Your task to perform on an android device: Show me recent news Image 0: 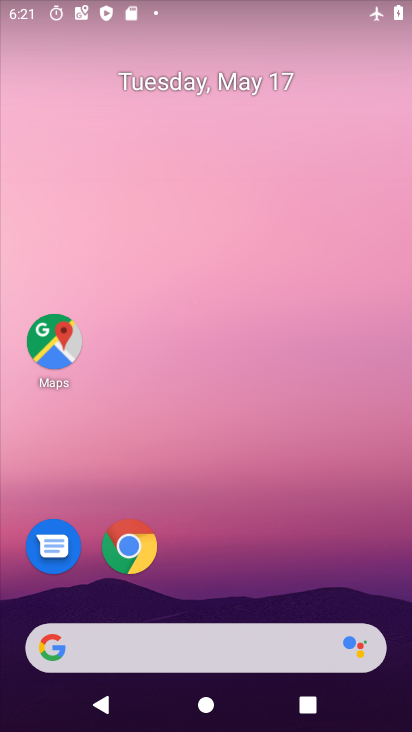
Step 0: drag from (240, 239) to (252, 153)
Your task to perform on an android device: Show me recent news Image 1: 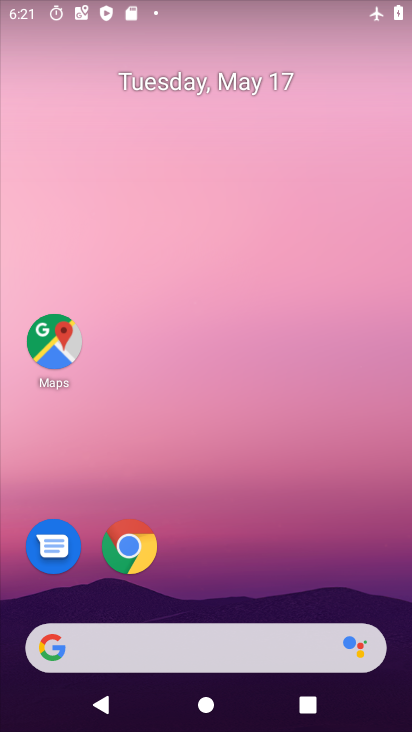
Step 1: drag from (202, 315) to (219, 1)
Your task to perform on an android device: Show me recent news Image 2: 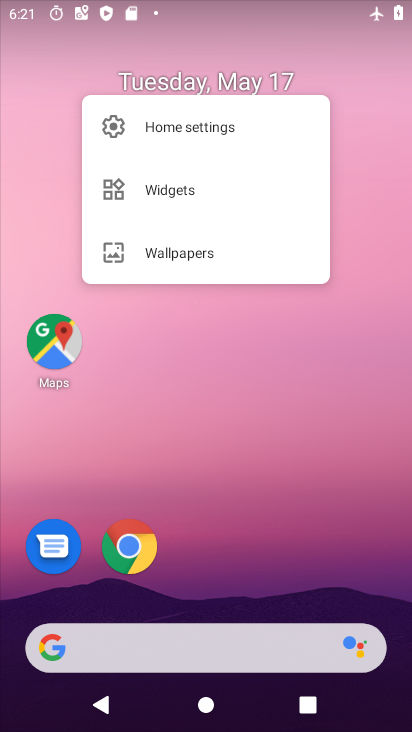
Step 2: drag from (186, 508) to (168, 0)
Your task to perform on an android device: Show me recent news Image 3: 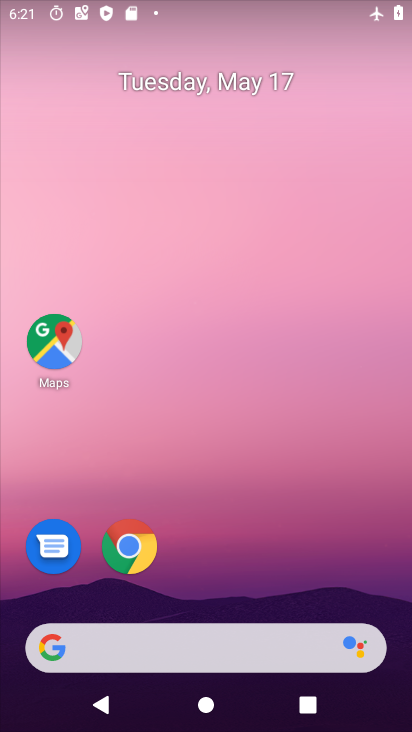
Step 3: drag from (226, 409) to (193, 264)
Your task to perform on an android device: Show me recent news Image 4: 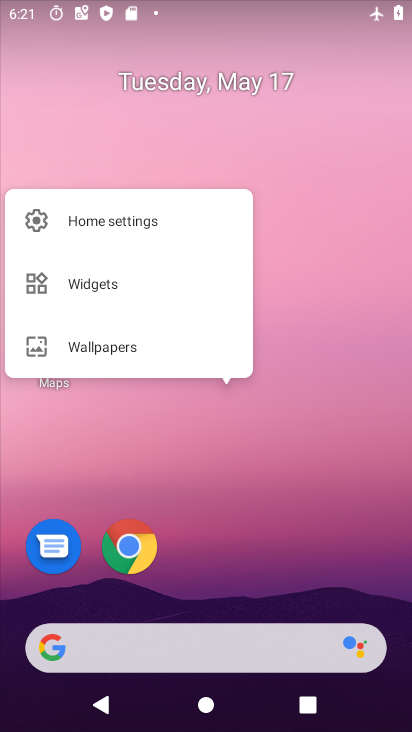
Step 4: drag from (230, 415) to (234, 76)
Your task to perform on an android device: Show me recent news Image 5: 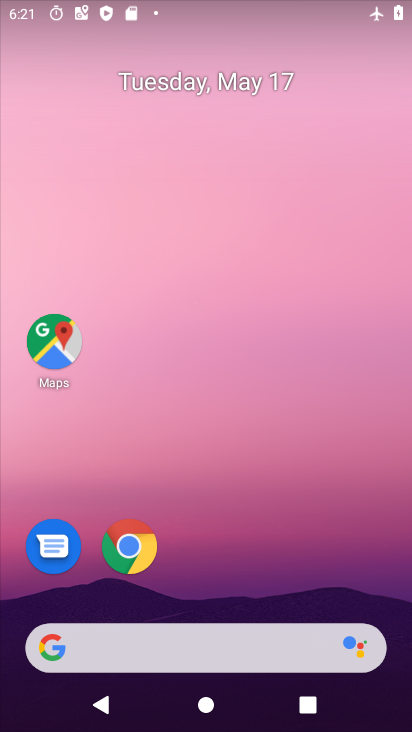
Step 5: drag from (219, 586) to (241, 96)
Your task to perform on an android device: Show me recent news Image 6: 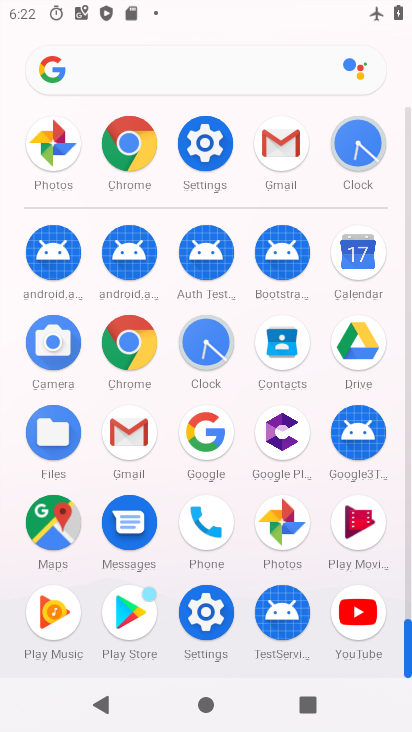
Step 6: click (201, 436)
Your task to perform on an android device: Show me recent news Image 7: 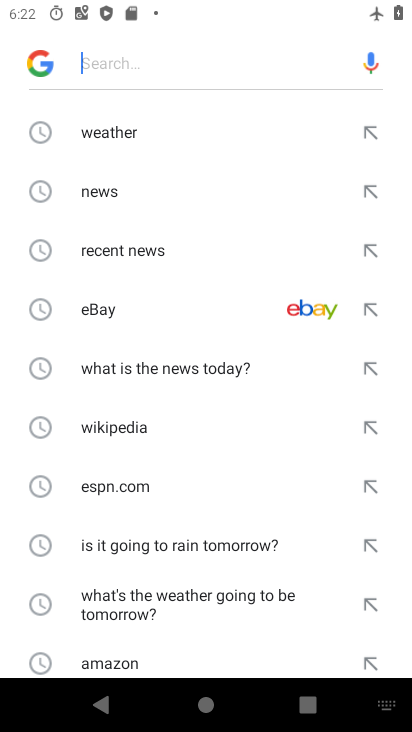
Step 7: click (134, 254)
Your task to perform on an android device: Show me recent news Image 8: 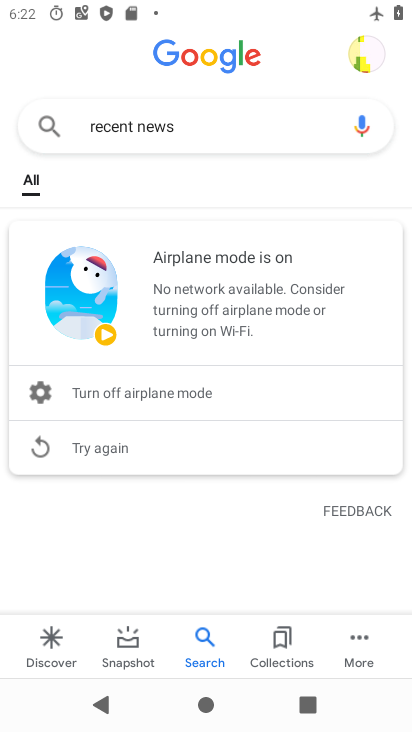
Step 8: task complete